Your task to perform on an android device: When is my next meeting? Image 0: 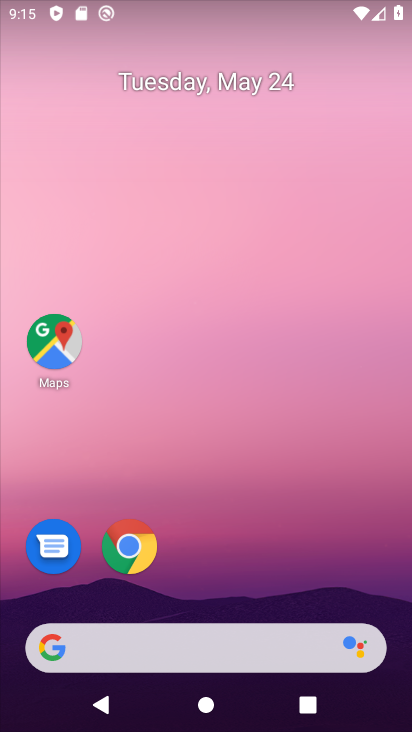
Step 0: drag from (269, 529) to (258, 168)
Your task to perform on an android device: When is my next meeting? Image 1: 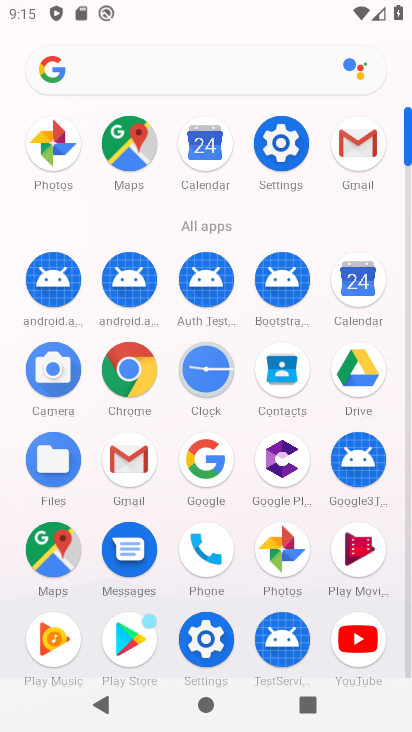
Step 1: click (369, 275)
Your task to perform on an android device: When is my next meeting? Image 2: 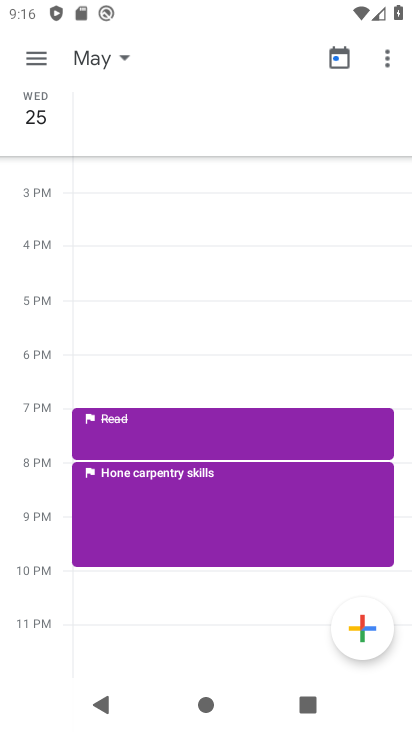
Step 2: click (122, 58)
Your task to perform on an android device: When is my next meeting? Image 3: 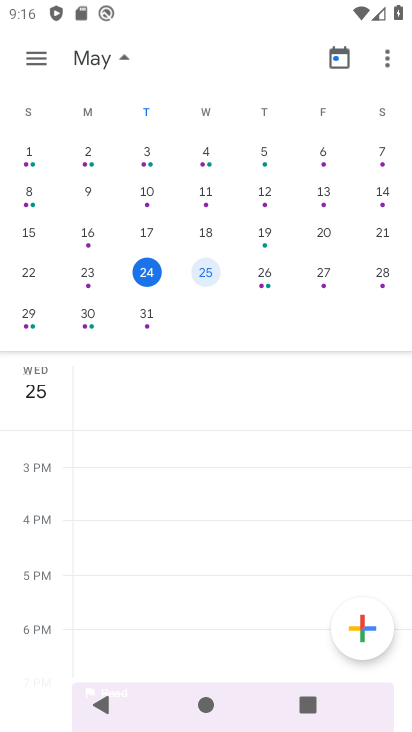
Step 3: click (149, 268)
Your task to perform on an android device: When is my next meeting? Image 4: 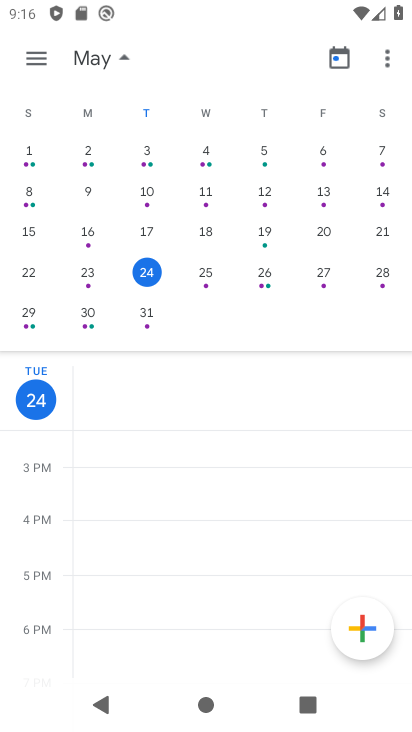
Step 4: task complete